Your task to perform on an android device: What's the weather today? Image 0: 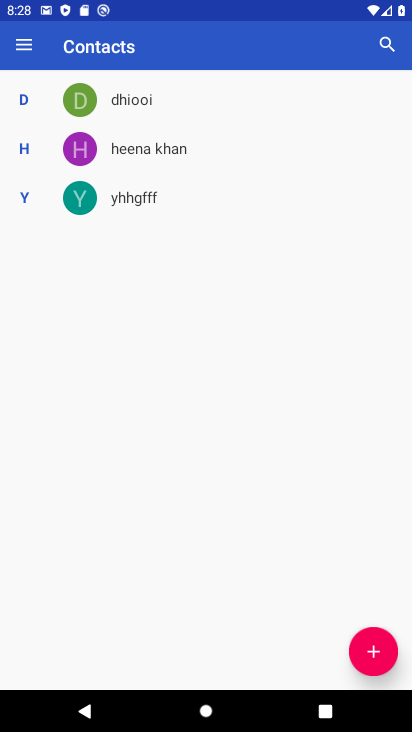
Step 0: press home button
Your task to perform on an android device: What's the weather today? Image 1: 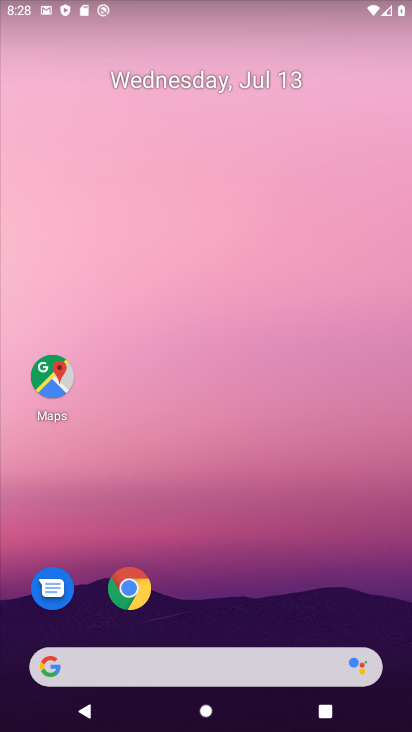
Step 1: click (134, 585)
Your task to perform on an android device: What's the weather today? Image 2: 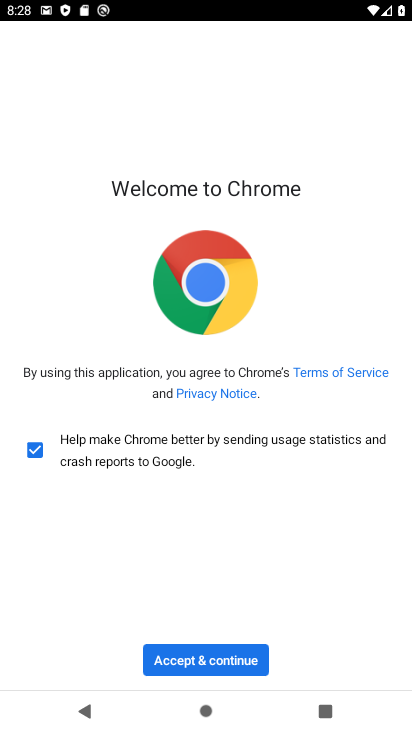
Step 2: click (195, 651)
Your task to perform on an android device: What's the weather today? Image 3: 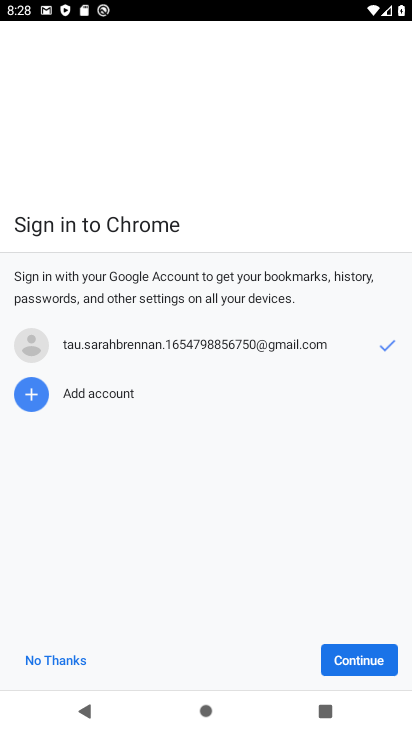
Step 3: click (377, 662)
Your task to perform on an android device: What's the weather today? Image 4: 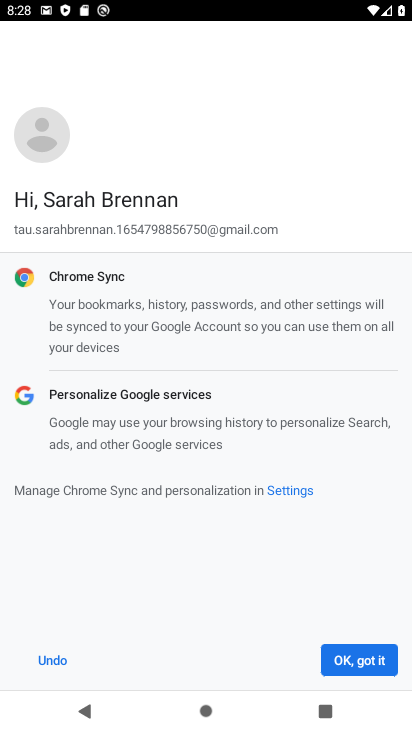
Step 4: click (357, 652)
Your task to perform on an android device: What's the weather today? Image 5: 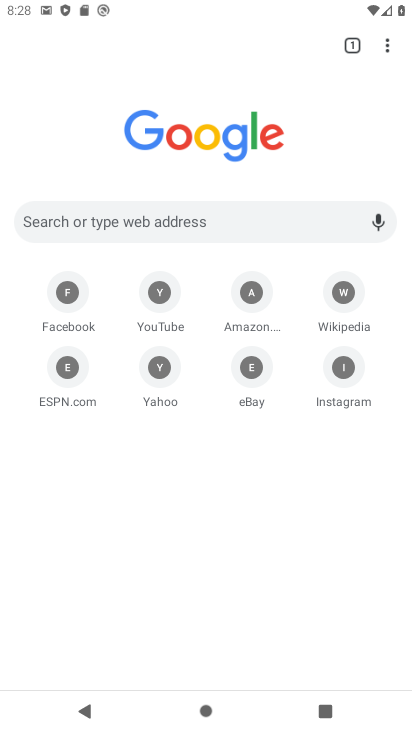
Step 5: click (392, 34)
Your task to perform on an android device: What's the weather today? Image 6: 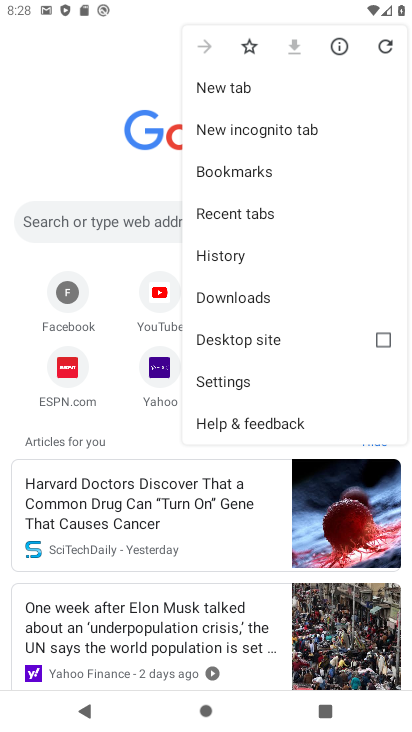
Step 6: click (93, 113)
Your task to perform on an android device: What's the weather today? Image 7: 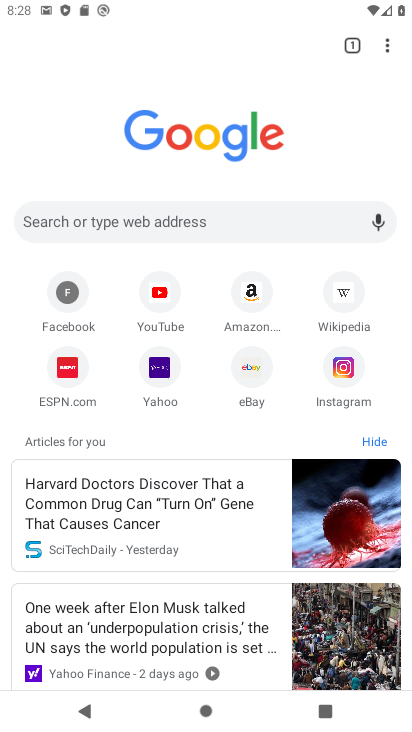
Step 7: click (207, 206)
Your task to perform on an android device: What's the weather today? Image 8: 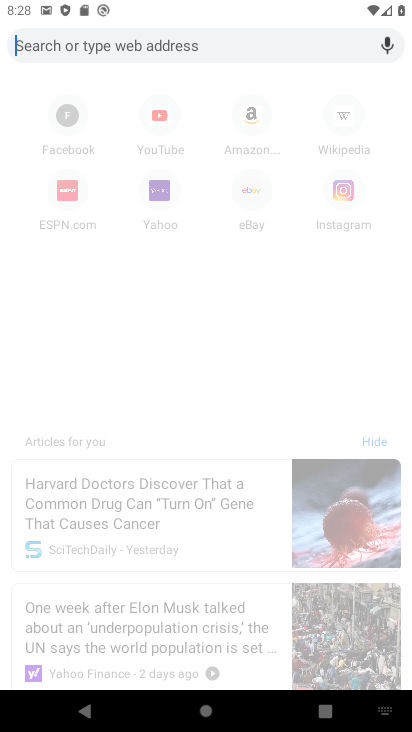
Step 8: type "What's the weather today "
Your task to perform on an android device: What's the weather today? Image 9: 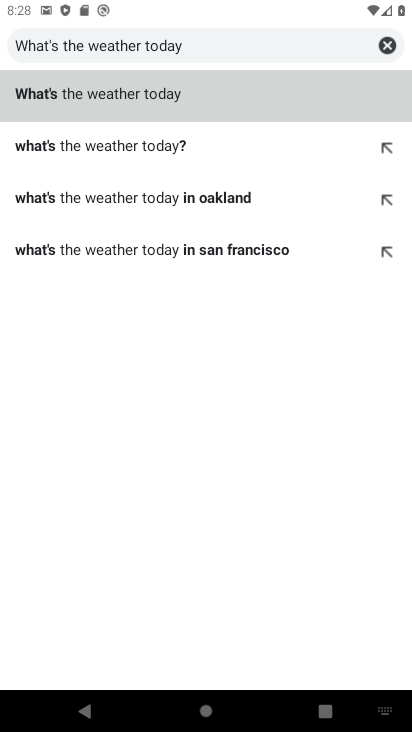
Step 9: click (182, 86)
Your task to perform on an android device: What's the weather today? Image 10: 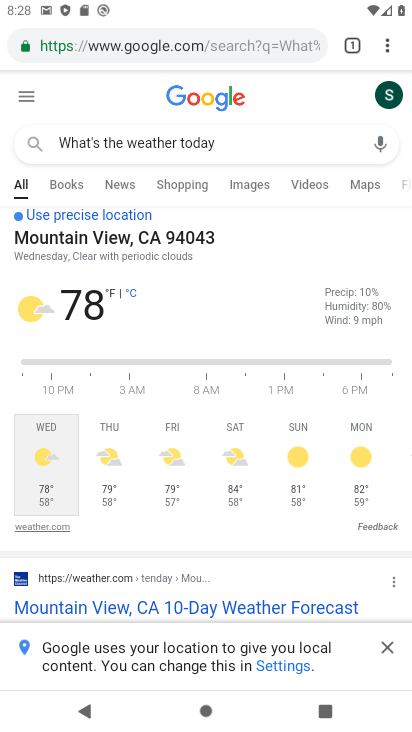
Step 10: task complete